Your task to perform on an android device: Go to display settings Image 0: 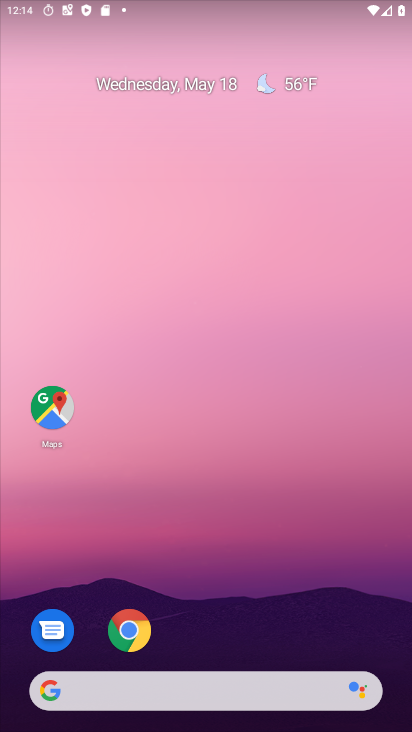
Step 0: drag from (217, 609) to (0, 118)
Your task to perform on an android device: Go to display settings Image 1: 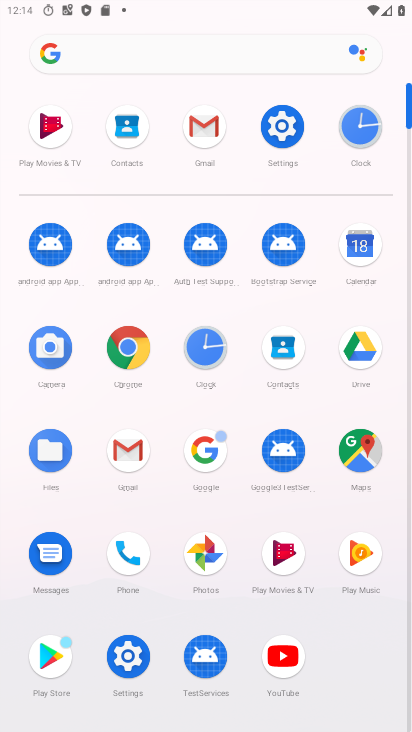
Step 1: click (284, 121)
Your task to perform on an android device: Go to display settings Image 2: 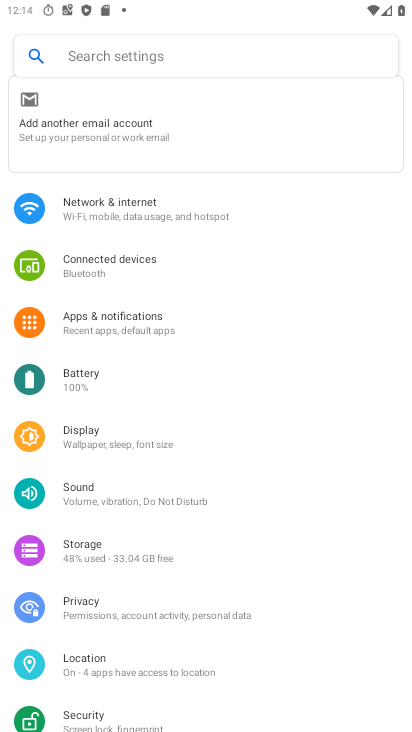
Step 2: click (107, 437)
Your task to perform on an android device: Go to display settings Image 3: 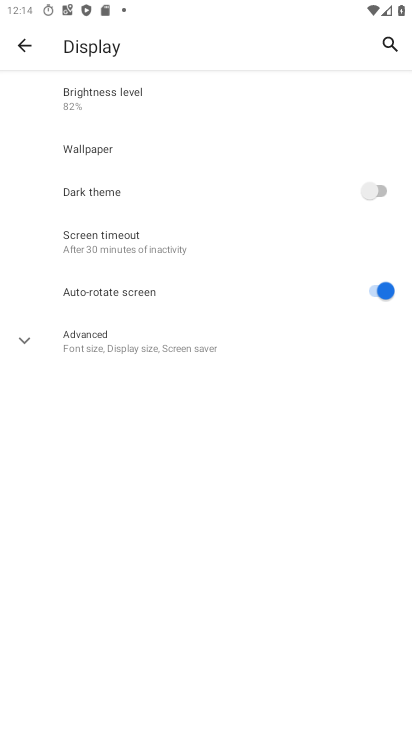
Step 3: task complete